Your task to perform on an android device: Go to location settings Image 0: 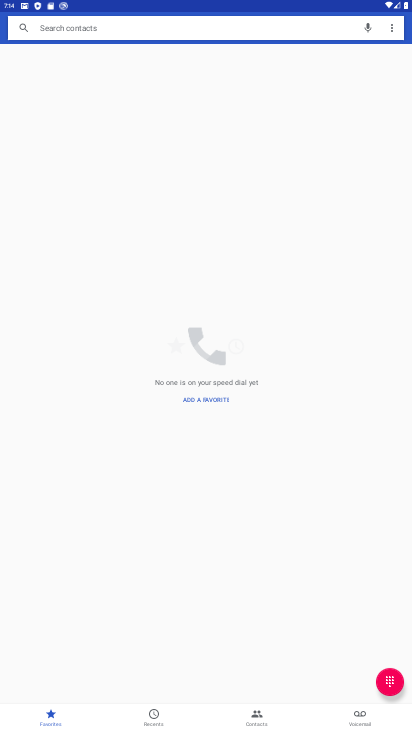
Step 0: press home button
Your task to perform on an android device: Go to location settings Image 1: 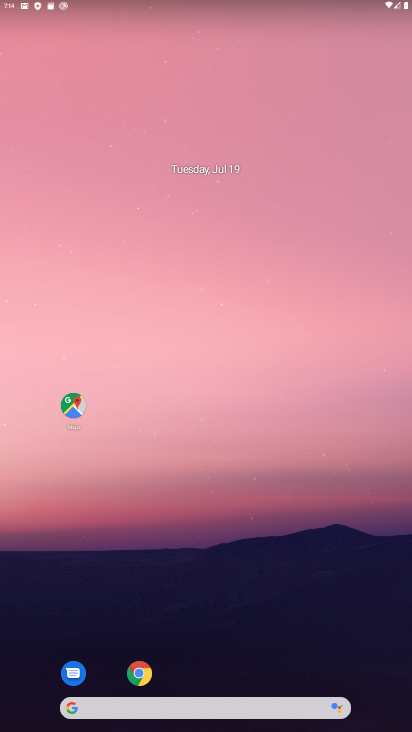
Step 1: drag from (334, 675) to (322, 150)
Your task to perform on an android device: Go to location settings Image 2: 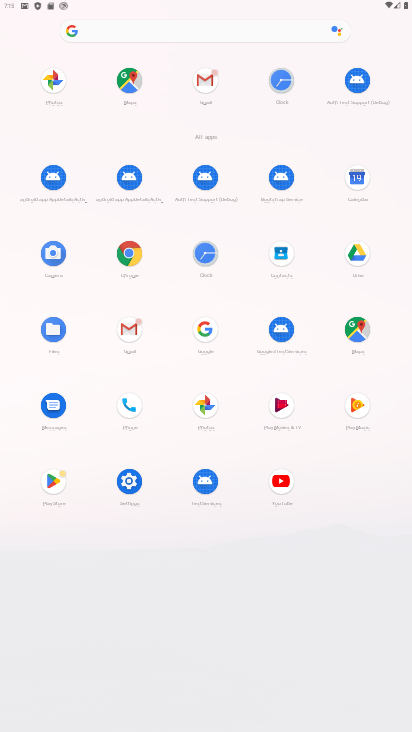
Step 2: click (123, 484)
Your task to perform on an android device: Go to location settings Image 3: 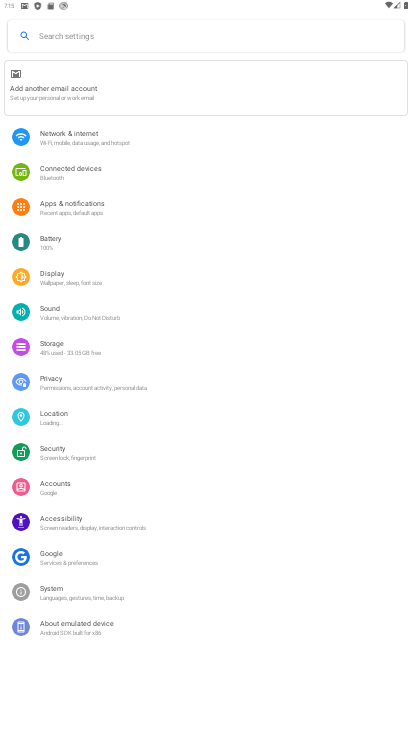
Step 3: click (68, 421)
Your task to perform on an android device: Go to location settings Image 4: 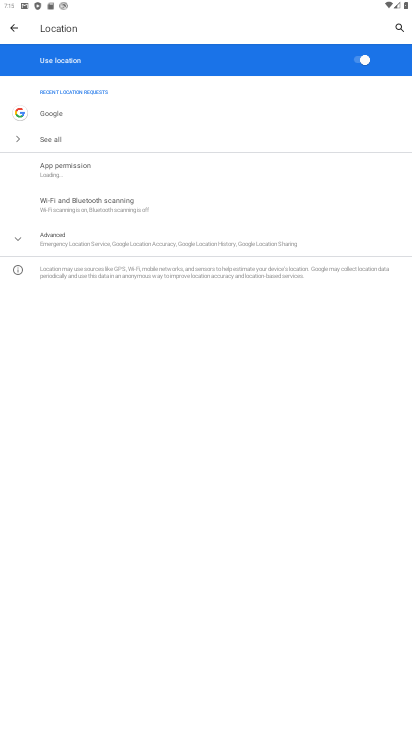
Step 4: task complete